Your task to perform on an android device: Open wifi settings Image 0: 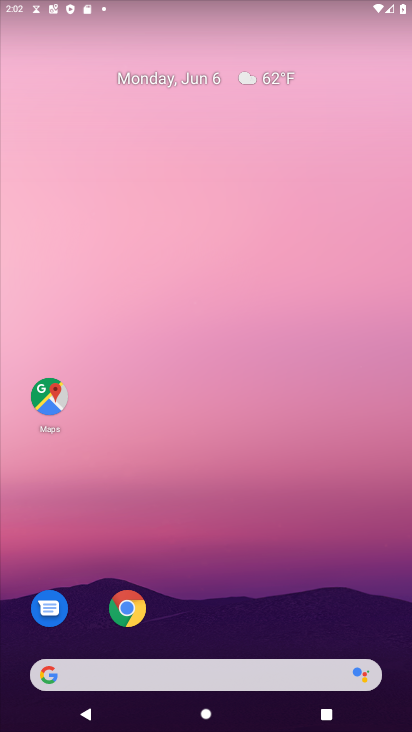
Step 0: drag from (286, 634) to (323, 7)
Your task to perform on an android device: Open wifi settings Image 1: 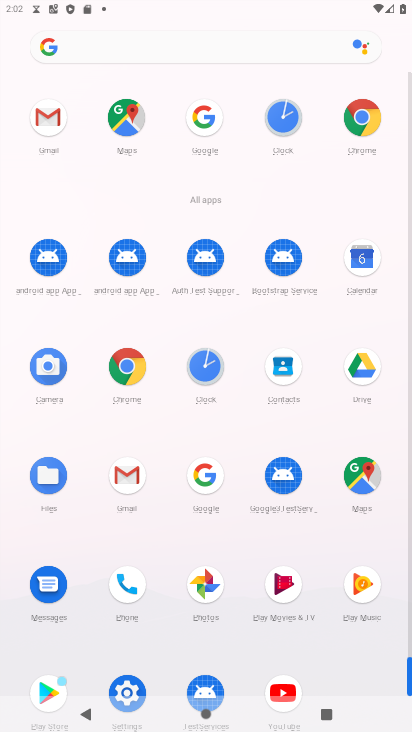
Step 1: click (129, 685)
Your task to perform on an android device: Open wifi settings Image 2: 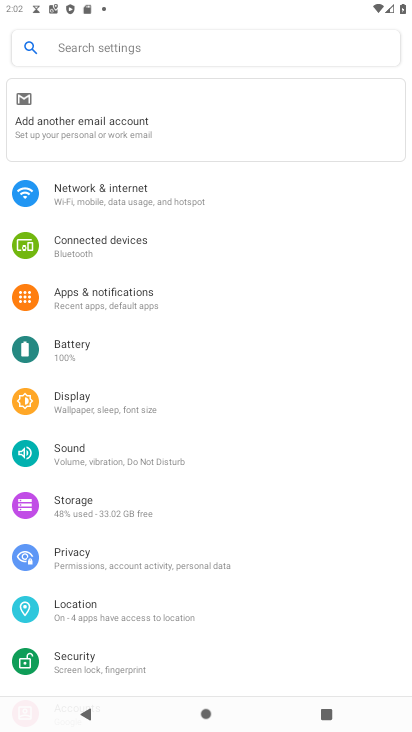
Step 2: click (101, 195)
Your task to perform on an android device: Open wifi settings Image 3: 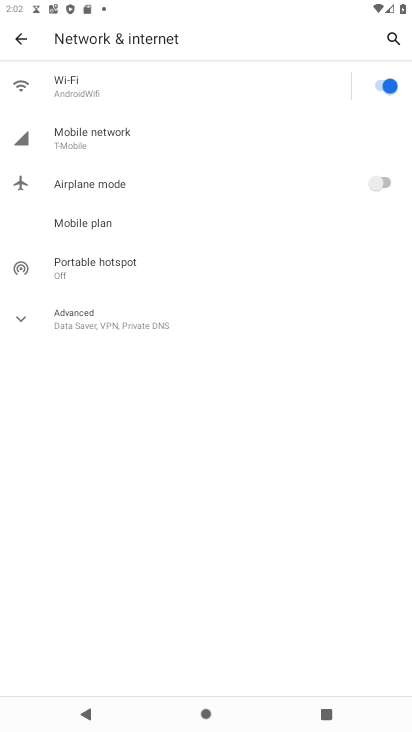
Step 3: click (92, 82)
Your task to perform on an android device: Open wifi settings Image 4: 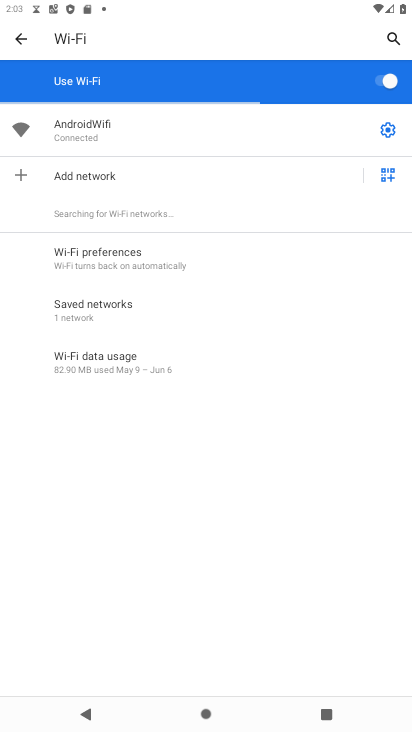
Step 4: task complete